Your task to perform on an android device: Show the shopping cart on walmart. Add "lenovo thinkpad" to the cart on walmart Image 0: 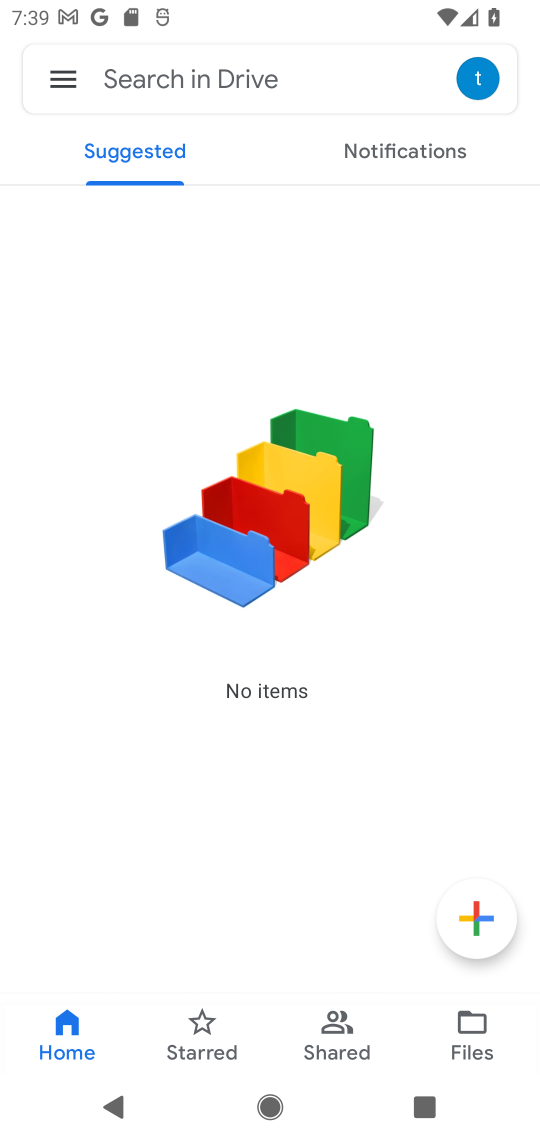
Step 0: press home button
Your task to perform on an android device: Show the shopping cart on walmart. Add "lenovo thinkpad" to the cart on walmart Image 1: 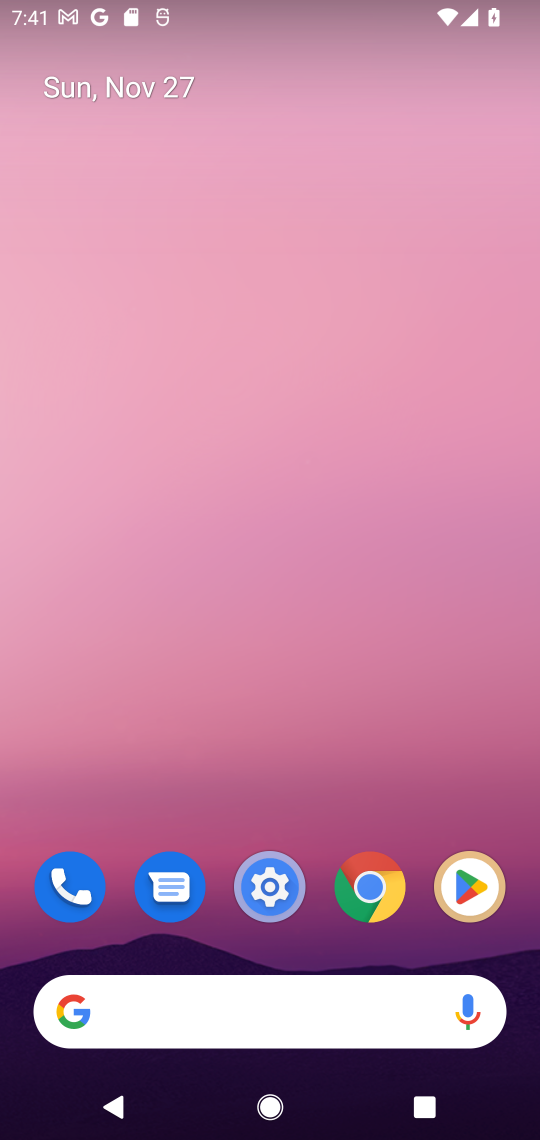
Step 1: click (352, 989)
Your task to perform on an android device: Show the shopping cart on walmart. Add "lenovo thinkpad" to the cart on walmart Image 2: 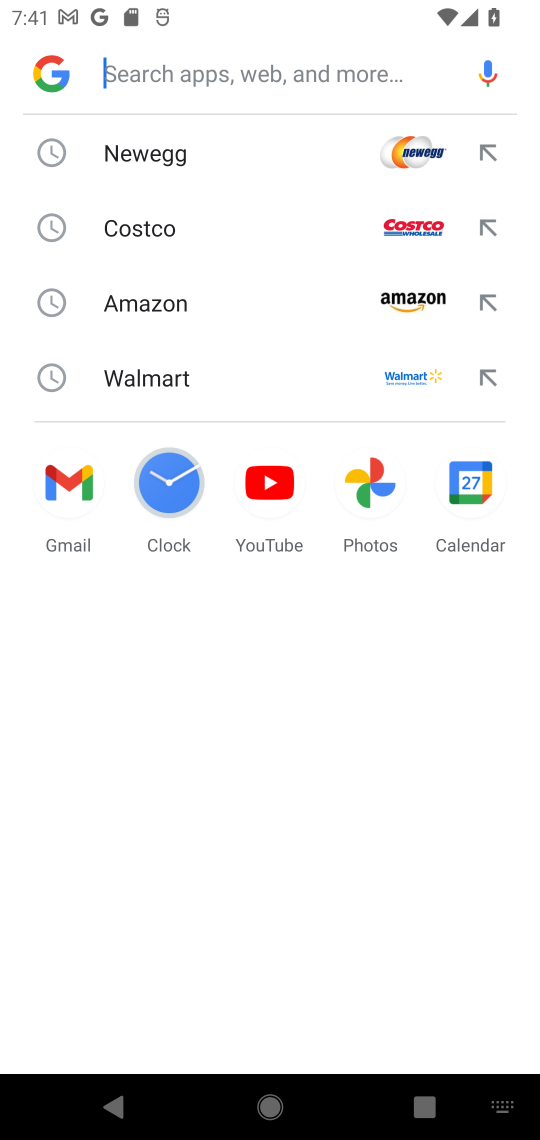
Step 2: click (271, 384)
Your task to perform on an android device: Show the shopping cart on walmart. Add "lenovo thinkpad" to the cart on walmart Image 3: 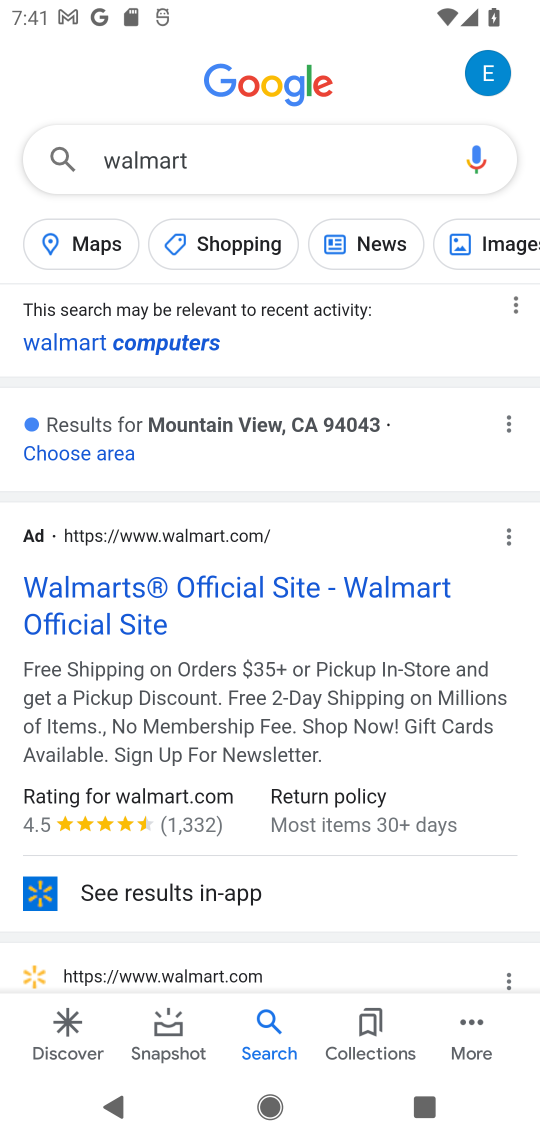
Step 3: click (219, 581)
Your task to perform on an android device: Show the shopping cart on walmart. Add "lenovo thinkpad" to the cart on walmart Image 4: 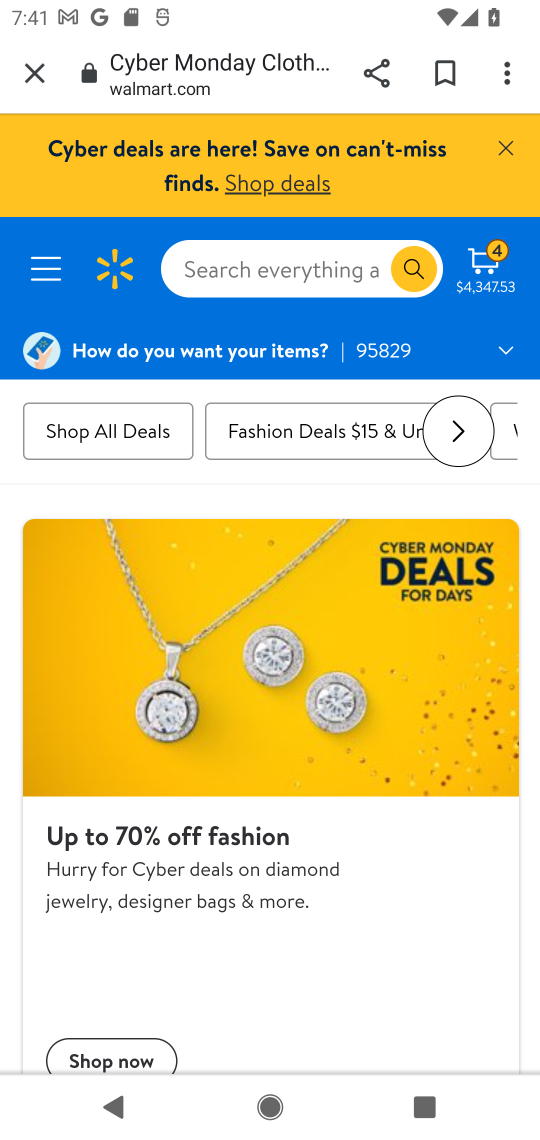
Step 4: click (296, 271)
Your task to perform on an android device: Show the shopping cart on walmart. Add "lenovo thinkpad" to the cart on walmart Image 5: 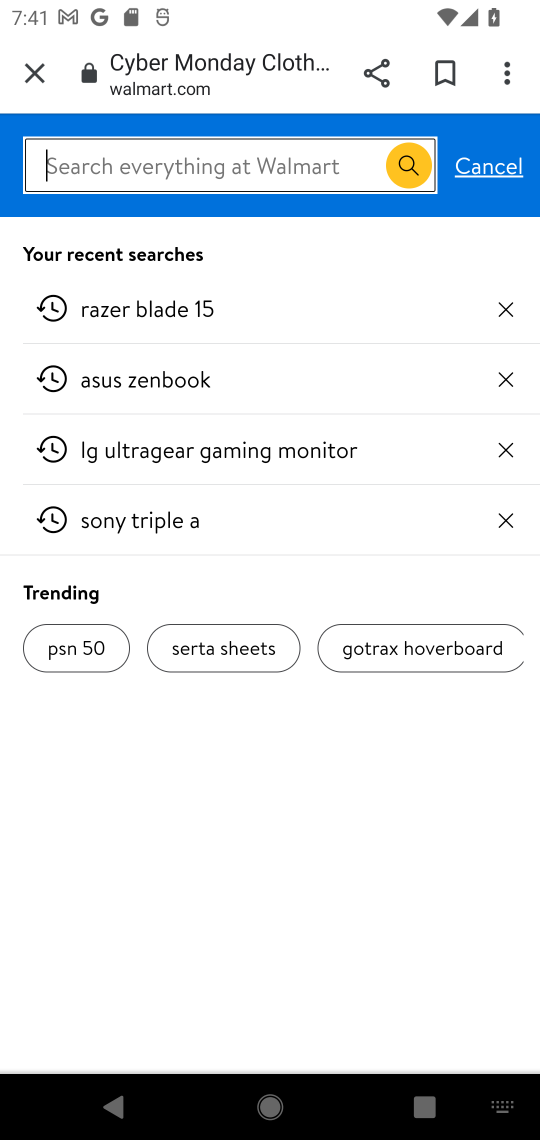
Step 5: type "lenovo thinkpad"
Your task to perform on an android device: Show the shopping cart on walmart. Add "lenovo thinkpad" to the cart on walmart Image 6: 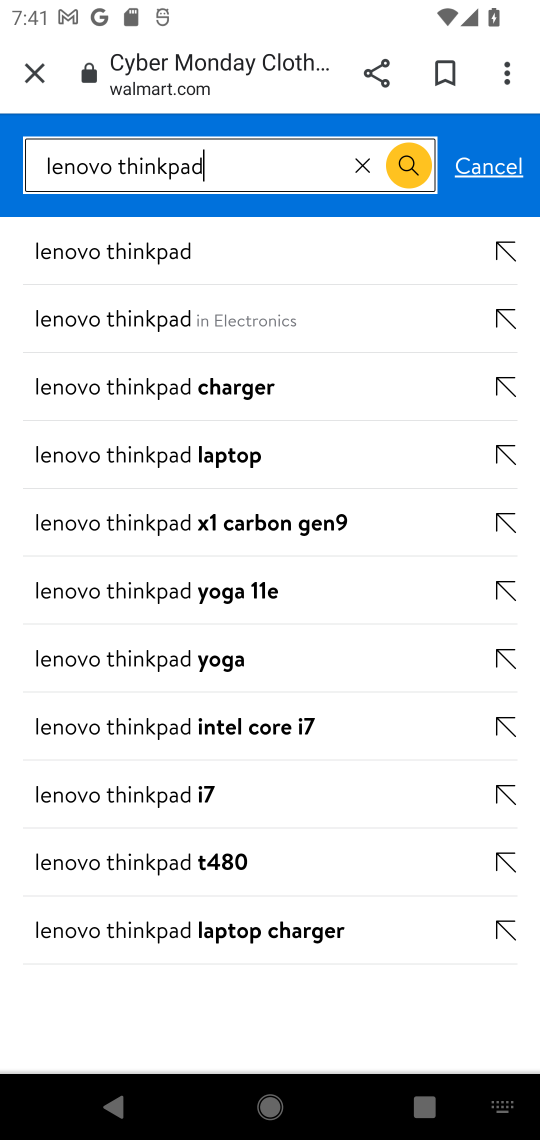
Step 6: click (172, 259)
Your task to perform on an android device: Show the shopping cart on walmart. Add "lenovo thinkpad" to the cart on walmart Image 7: 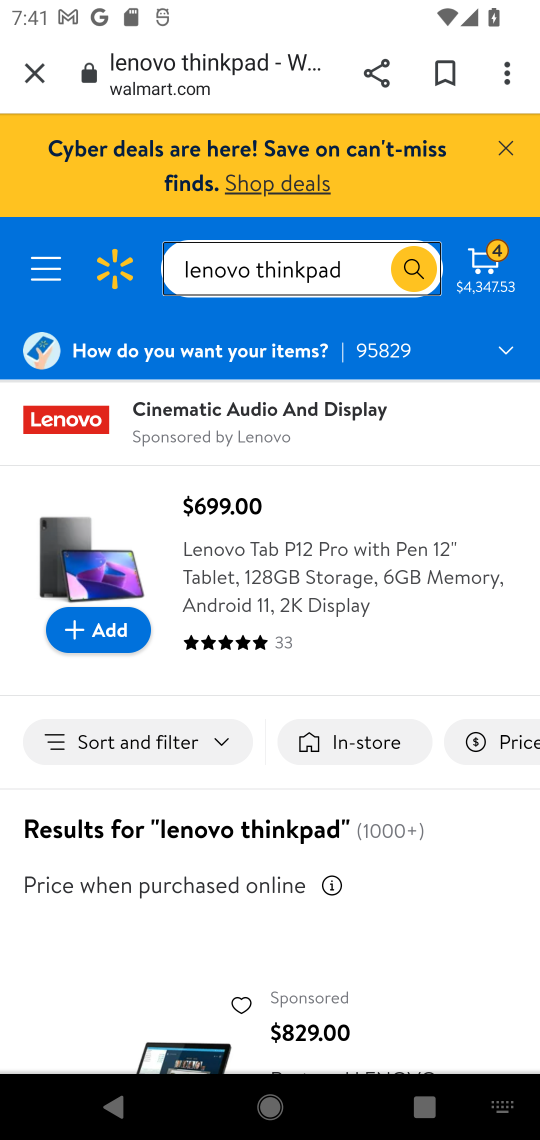
Step 7: drag from (453, 1000) to (319, 543)
Your task to perform on an android device: Show the shopping cart on walmart. Add "lenovo thinkpad" to the cart on walmart Image 8: 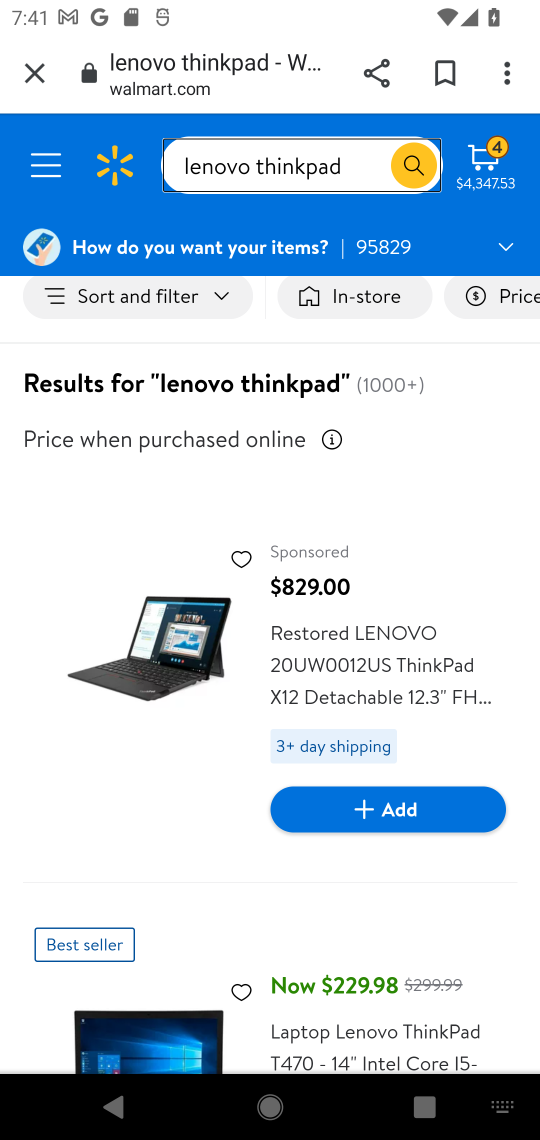
Step 8: click (419, 833)
Your task to perform on an android device: Show the shopping cart on walmart. Add "lenovo thinkpad" to the cart on walmart Image 9: 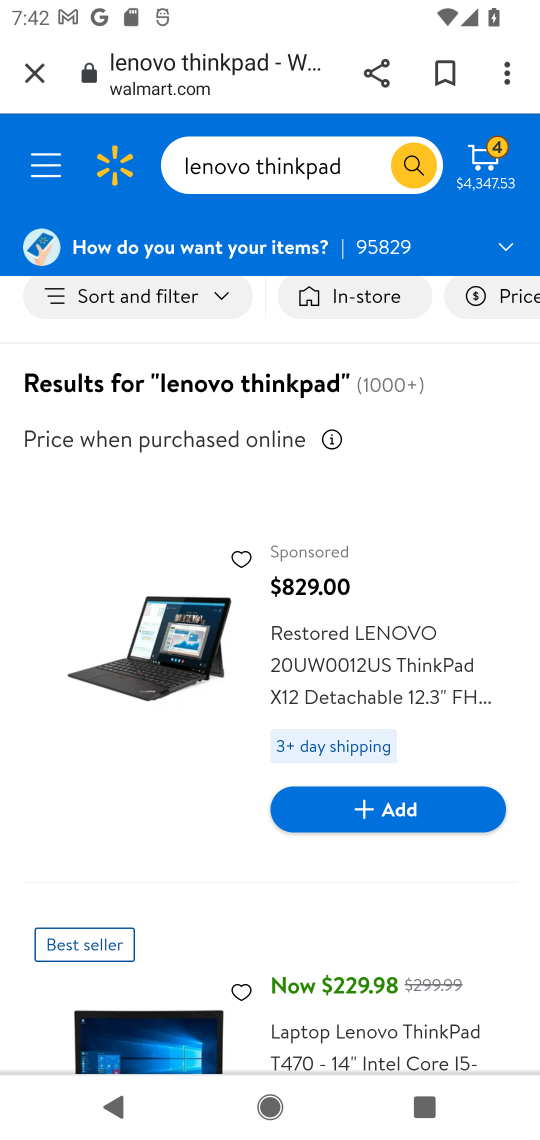
Step 9: click (367, 826)
Your task to perform on an android device: Show the shopping cart on walmart. Add "lenovo thinkpad" to the cart on walmart Image 10: 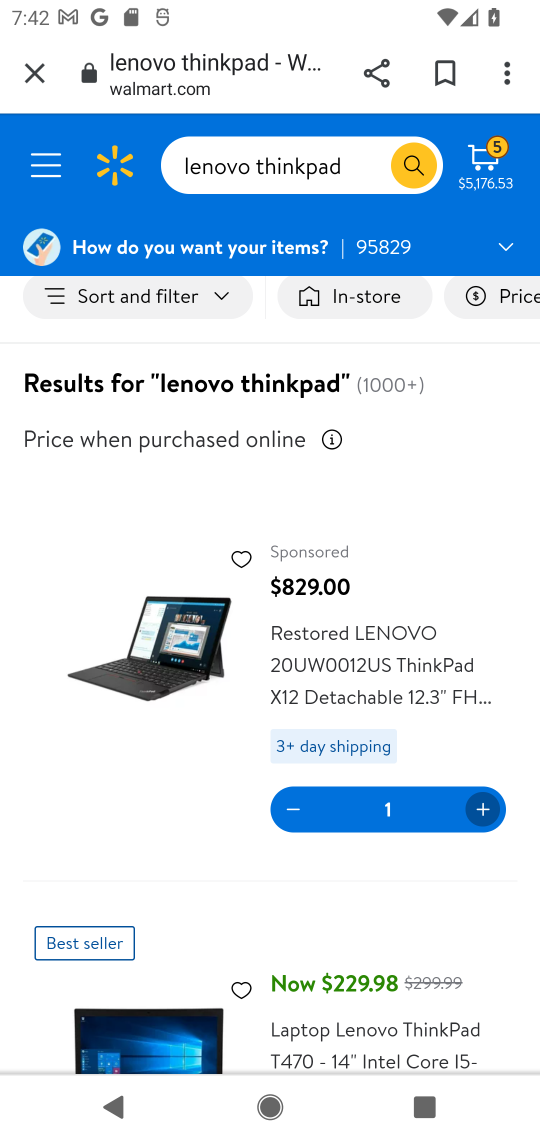
Step 10: task complete